Your task to perform on an android device: turn on the 24-hour format for clock Image 0: 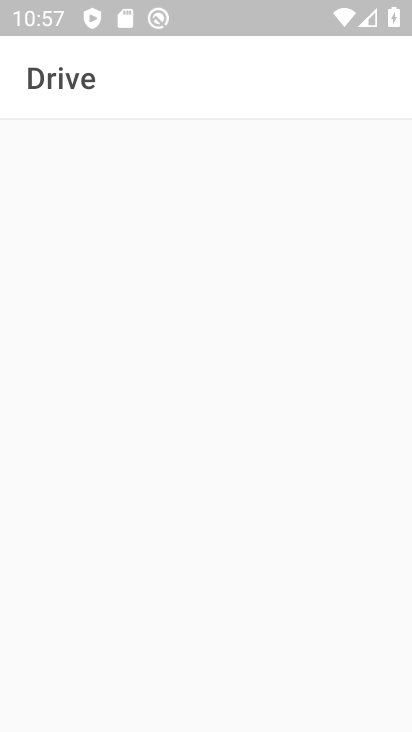
Step 0: press home button
Your task to perform on an android device: turn on the 24-hour format for clock Image 1: 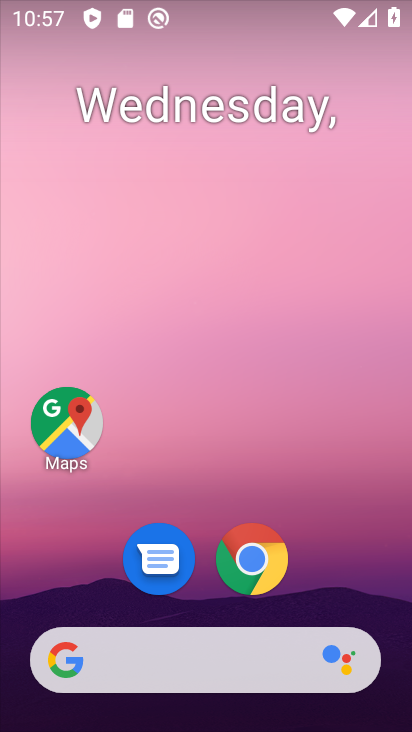
Step 1: drag from (185, 609) to (238, 219)
Your task to perform on an android device: turn on the 24-hour format for clock Image 2: 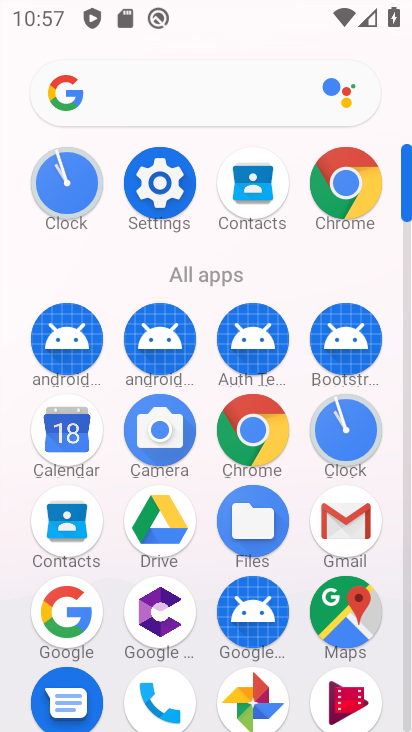
Step 2: click (350, 432)
Your task to perform on an android device: turn on the 24-hour format for clock Image 3: 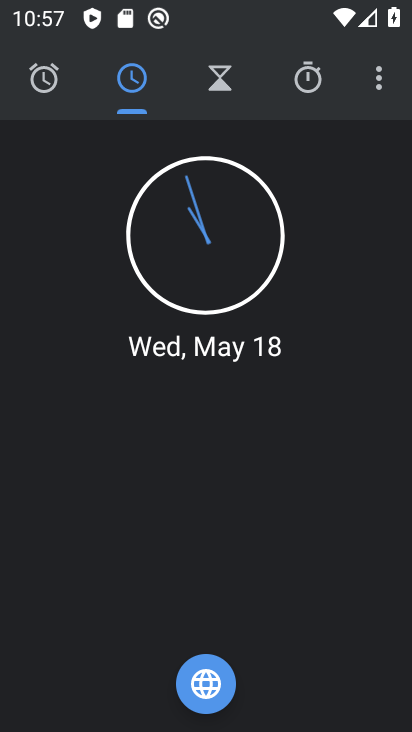
Step 3: click (381, 79)
Your task to perform on an android device: turn on the 24-hour format for clock Image 4: 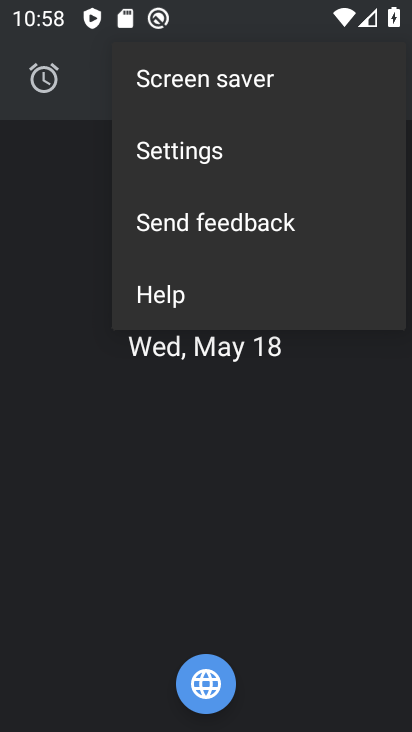
Step 4: click (202, 153)
Your task to perform on an android device: turn on the 24-hour format for clock Image 5: 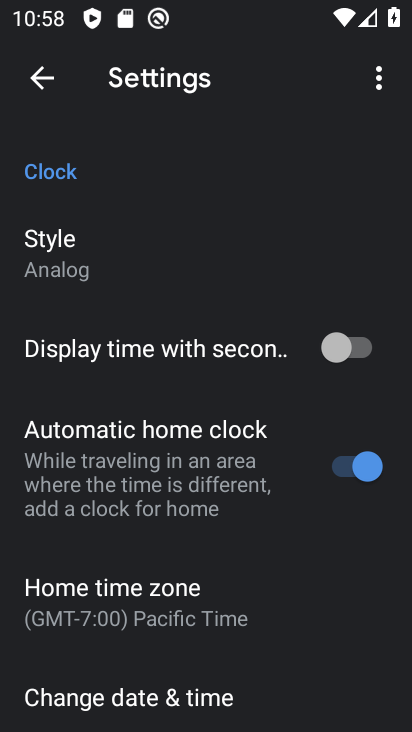
Step 5: click (174, 702)
Your task to perform on an android device: turn on the 24-hour format for clock Image 6: 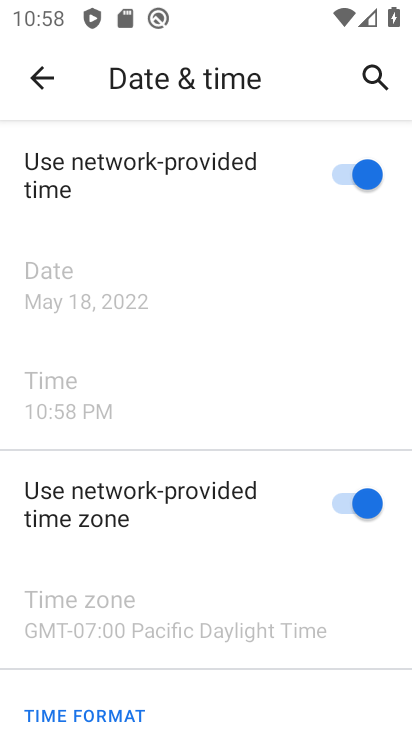
Step 6: drag from (257, 512) to (320, 178)
Your task to perform on an android device: turn on the 24-hour format for clock Image 7: 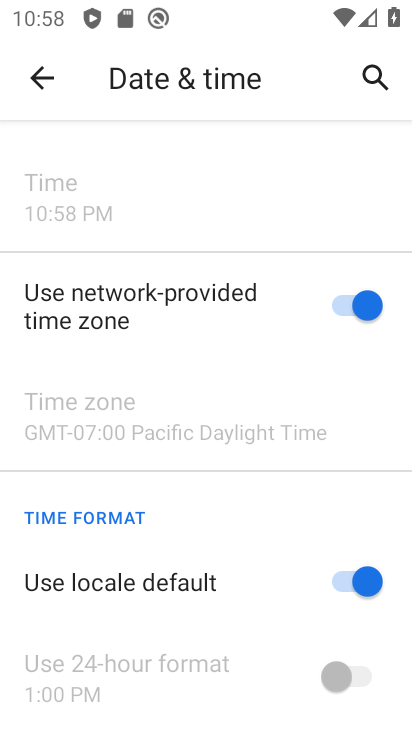
Step 7: click (344, 580)
Your task to perform on an android device: turn on the 24-hour format for clock Image 8: 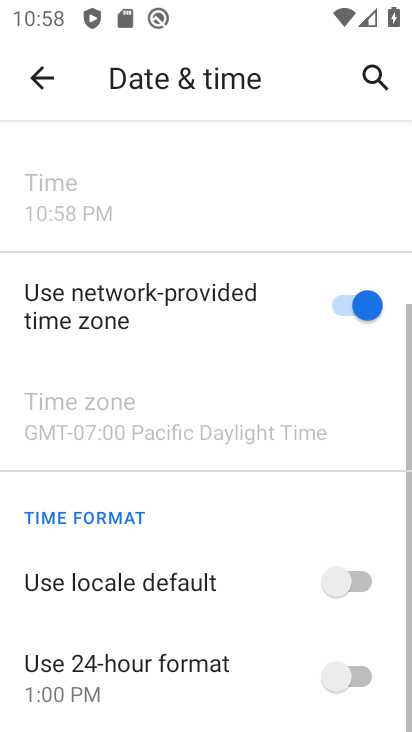
Step 8: click (358, 677)
Your task to perform on an android device: turn on the 24-hour format for clock Image 9: 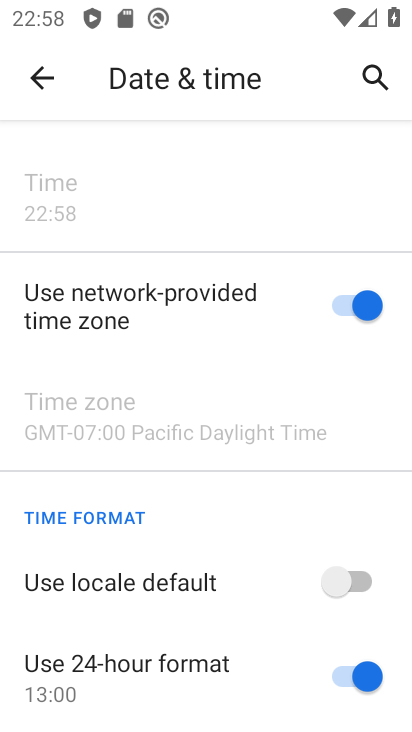
Step 9: task complete